Your task to perform on an android device: choose inbox layout in the gmail app Image 0: 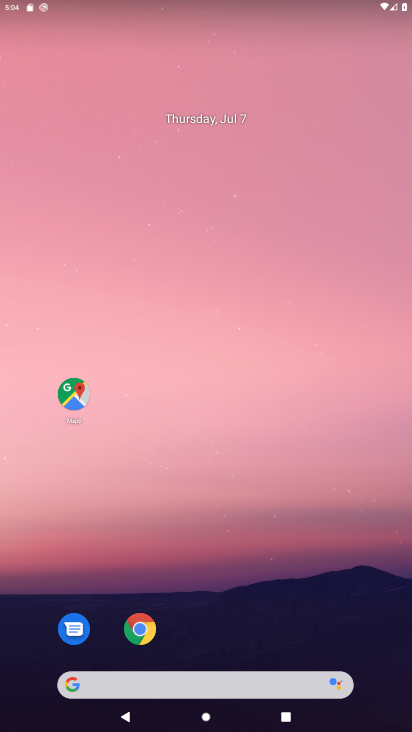
Step 0: drag from (271, 649) to (234, 260)
Your task to perform on an android device: choose inbox layout in the gmail app Image 1: 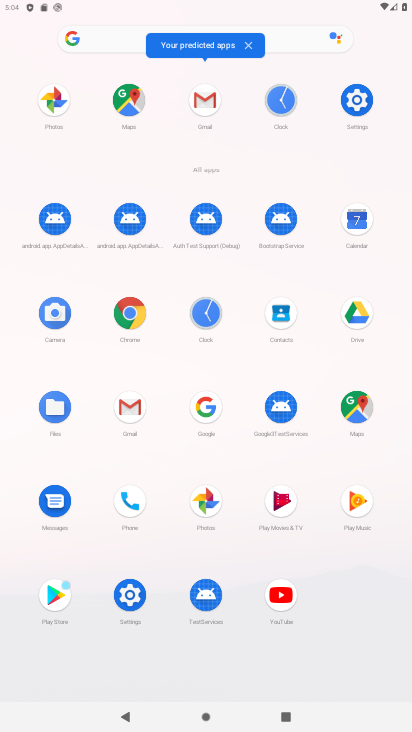
Step 1: click (197, 101)
Your task to perform on an android device: choose inbox layout in the gmail app Image 2: 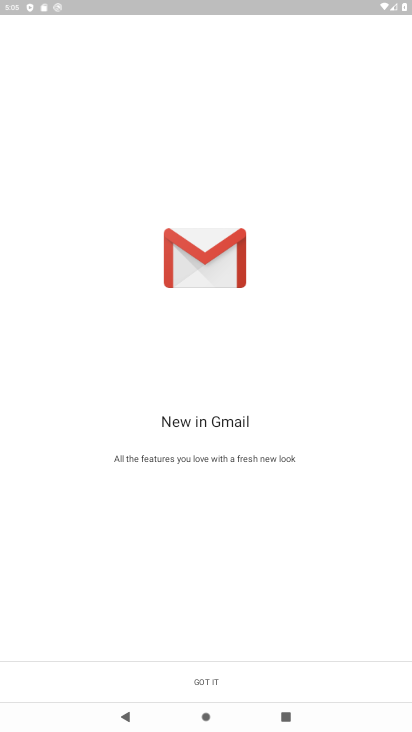
Step 2: click (127, 686)
Your task to perform on an android device: choose inbox layout in the gmail app Image 3: 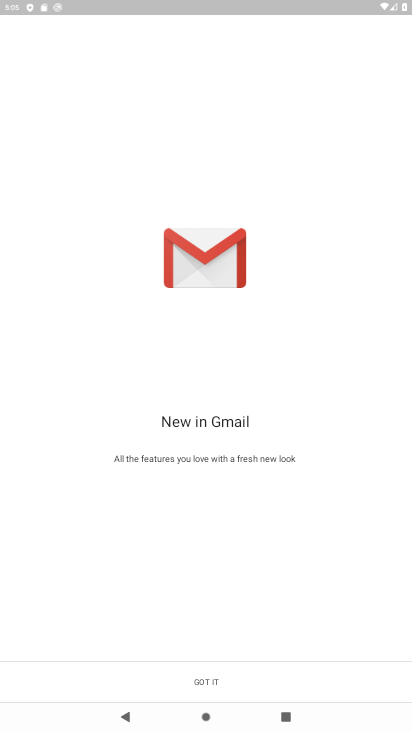
Step 3: click (127, 686)
Your task to perform on an android device: choose inbox layout in the gmail app Image 4: 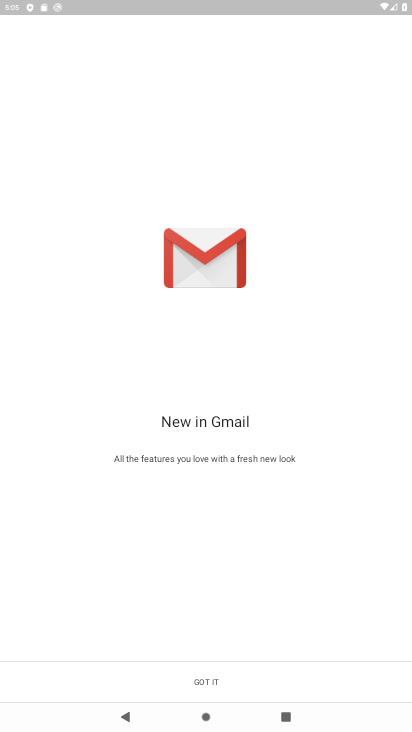
Step 4: click (127, 686)
Your task to perform on an android device: choose inbox layout in the gmail app Image 5: 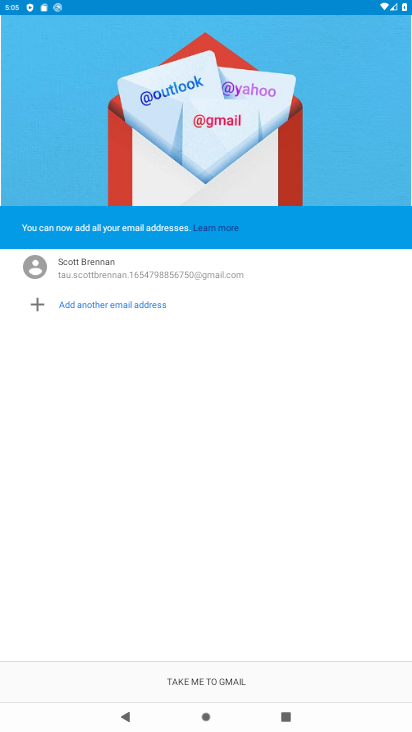
Step 5: click (123, 686)
Your task to perform on an android device: choose inbox layout in the gmail app Image 6: 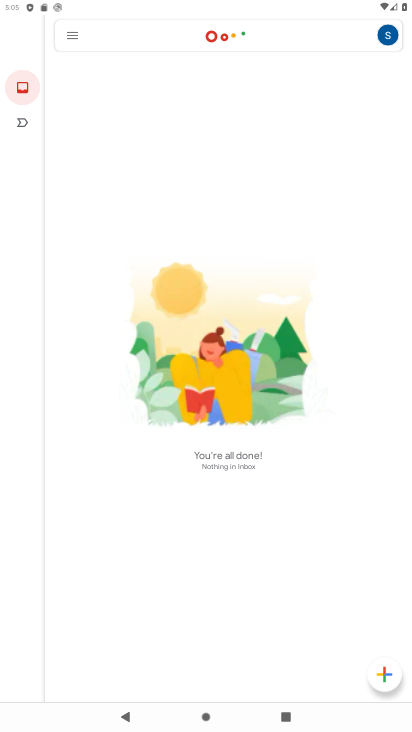
Step 6: click (75, 36)
Your task to perform on an android device: choose inbox layout in the gmail app Image 7: 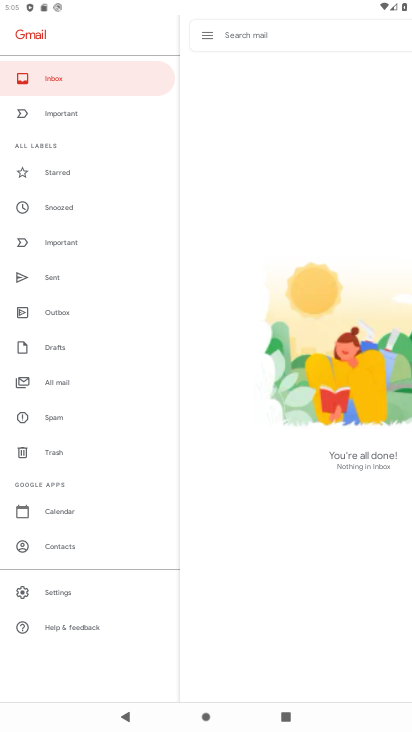
Step 7: click (45, 592)
Your task to perform on an android device: choose inbox layout in the gmail app Image 8: 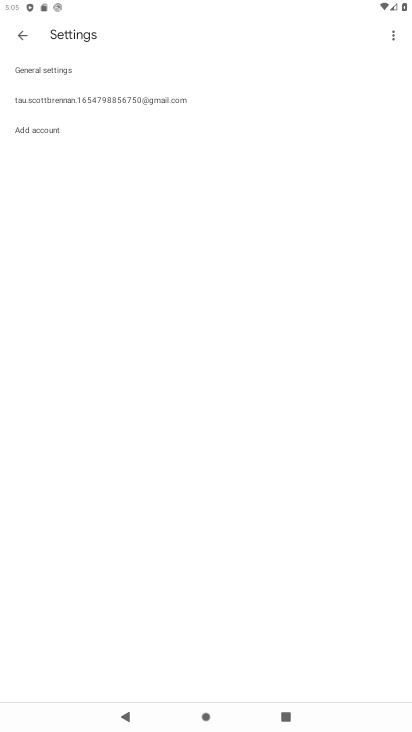
Step 8: click (166, 109)
Your task to perform on an android device: choose inbox layout in the gmail app Image 9: 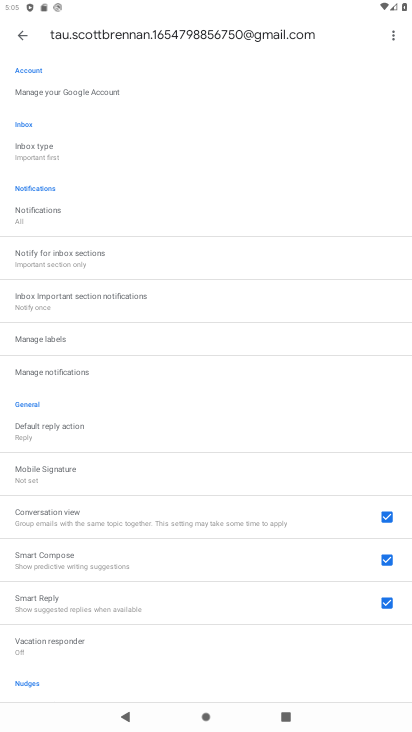
Step 9: click (36, 159)
Your task to perform on an android device: choose inbox layout in the gmail app Image 10: 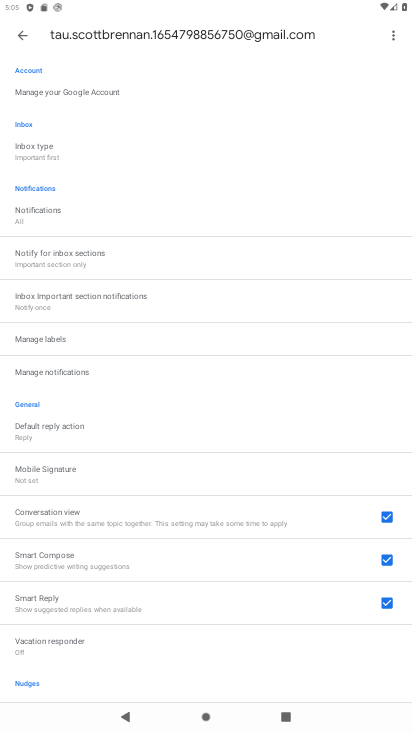
Step 10: click (57, 140)
Your task to perform on an android device: choose inbox layout in the gmail app Image 11: 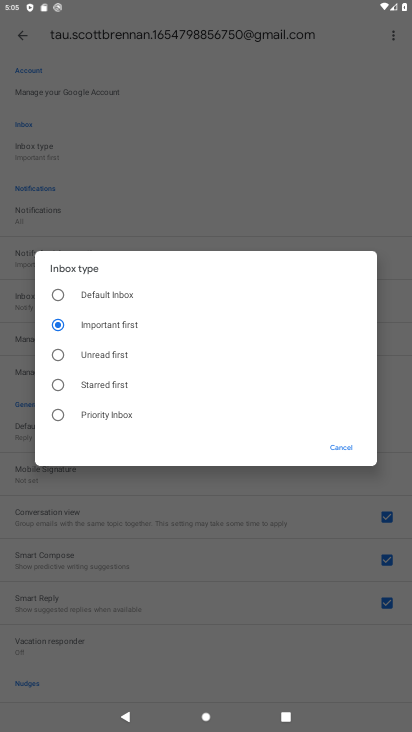
Step 11: click (89, 424)
Your task to perform on an android device: choose inbox layout in the gmail app Image 12: 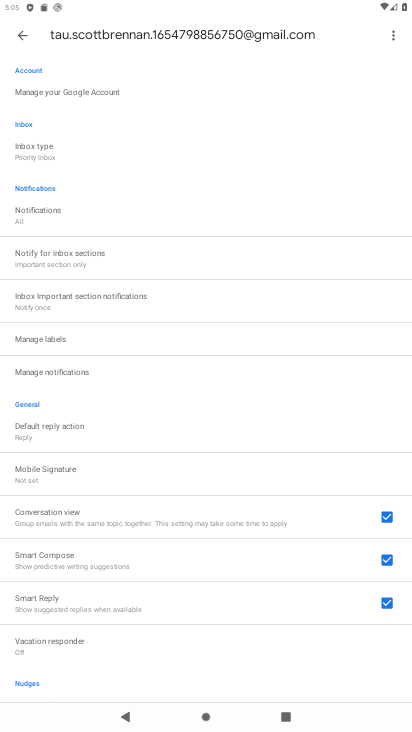
Step 12: task complete